Your task to perform on an android device: Open the phone app and click the voicemail tab. Image 0: 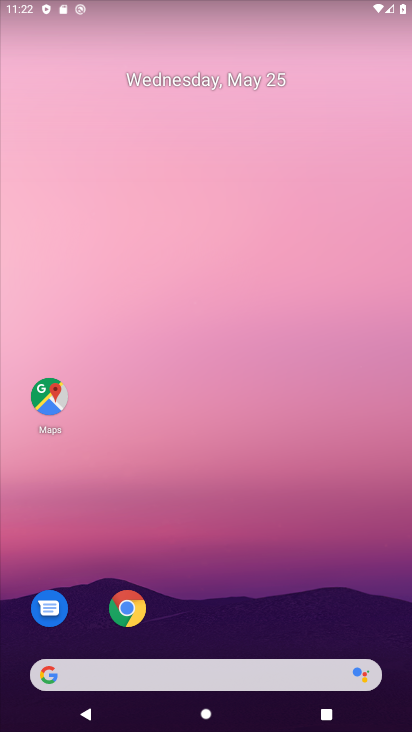
Step 0: drag from (214, 625) to (288, 214)
Your task to perform on an android device: Open the phone app and click the voicemail tab. Image 1: 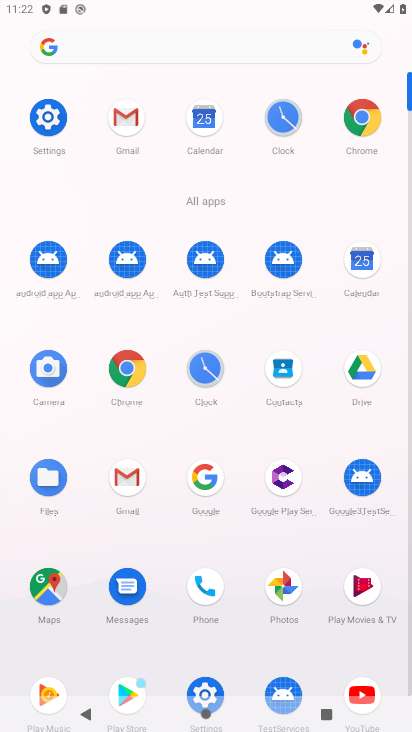
Step 1: click (215, 581)
Your task to perform on an android device: Open the phone app and click the voicemail tab. Image 2: 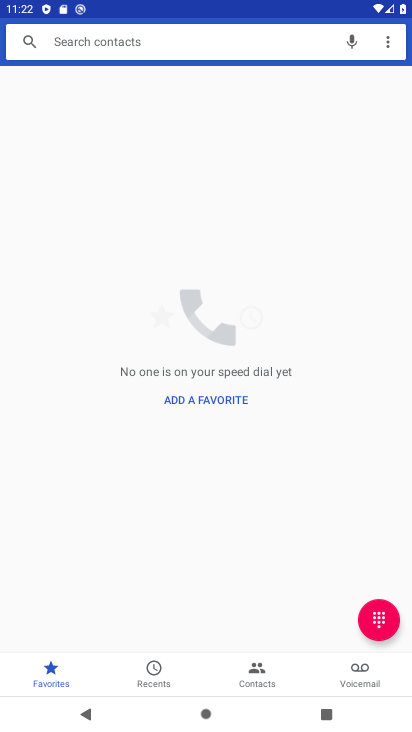
Step 2: click (362, 676)
Your task to perform on an android device: Open the phone app and click the voicemail tab. Image 3: 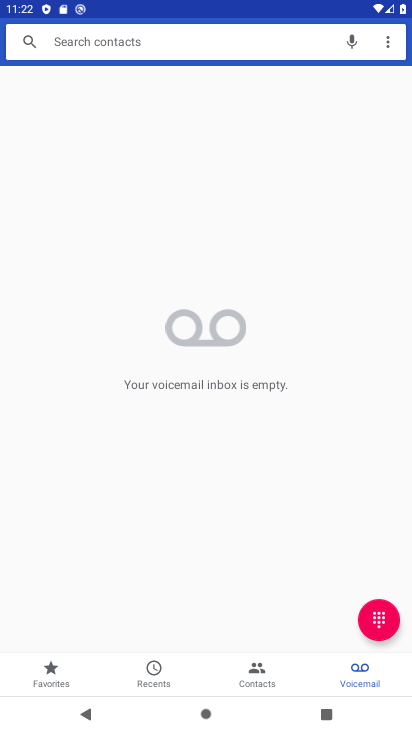
Step 3: task complete